Your task to perform on an android device: change text size in settings app Image 0: 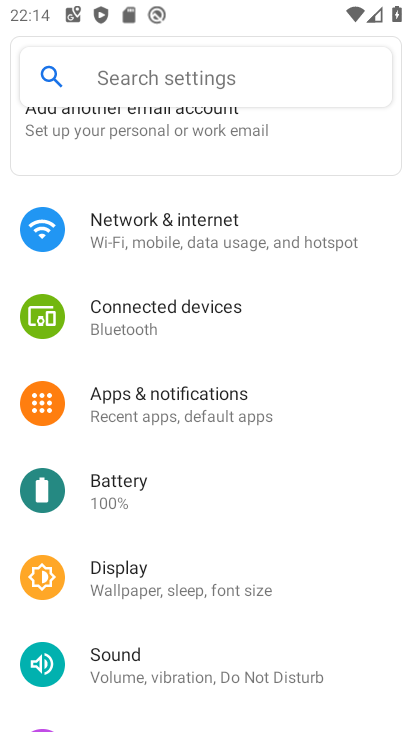
Step 0: press home button
Your task to perform on an android device: change text size in settings app Image 1: 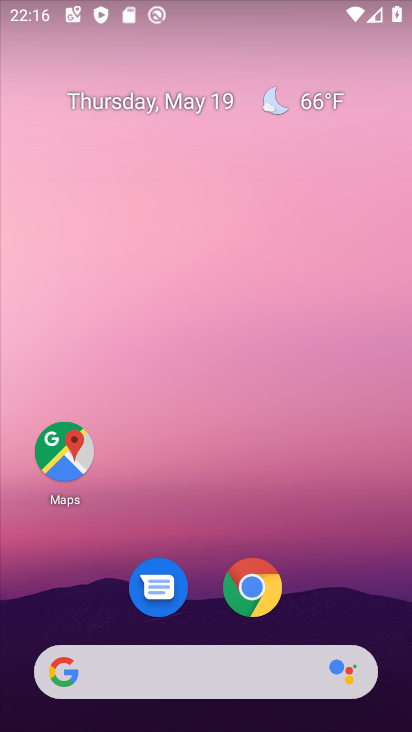
Step 1: drag from (230, 721) to (200, 275)
Your task to perform on an android device: change text size in settings app Image 2: 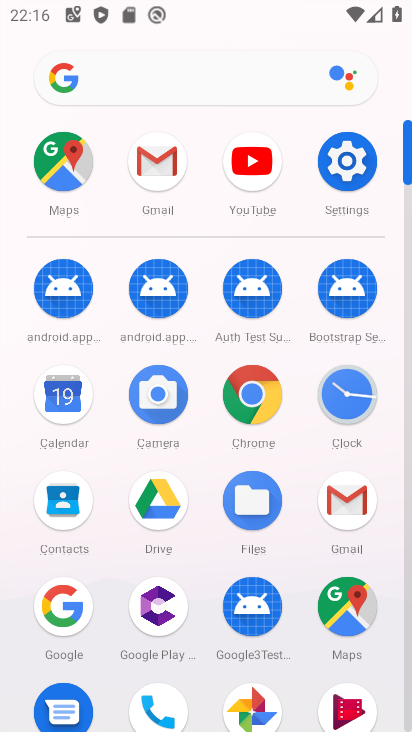
Step 2: click (331, 172)
Your task to perform on an android device: change text size in settings app Image 3: 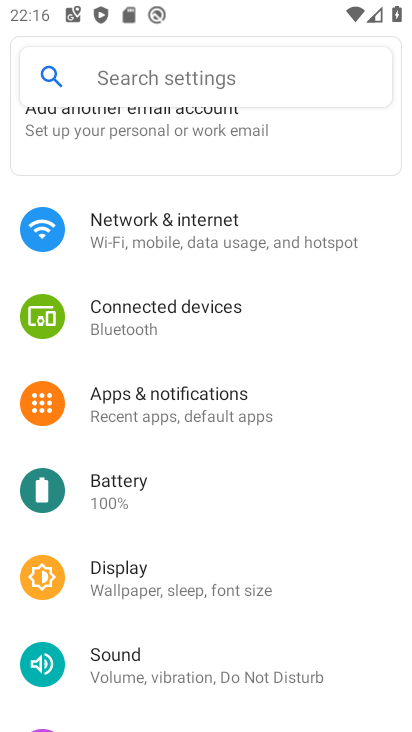
Step 3: click (107, 64)
Your task to perform on an android device: change text size in settings app Image 4: 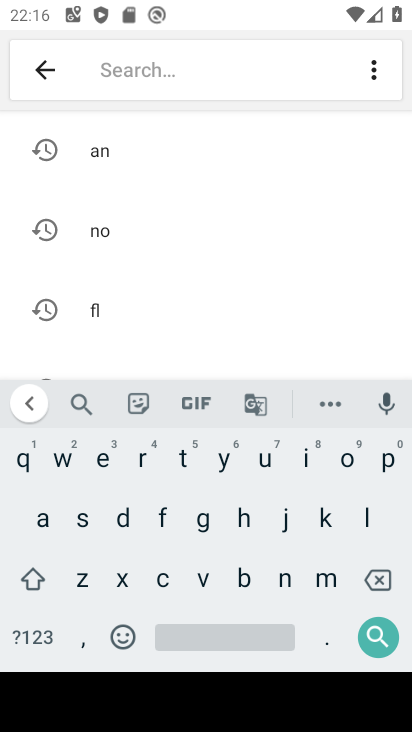
Step 4: click (77, 516)
Your task to perform on an android device: change text size in settings app Image 5: 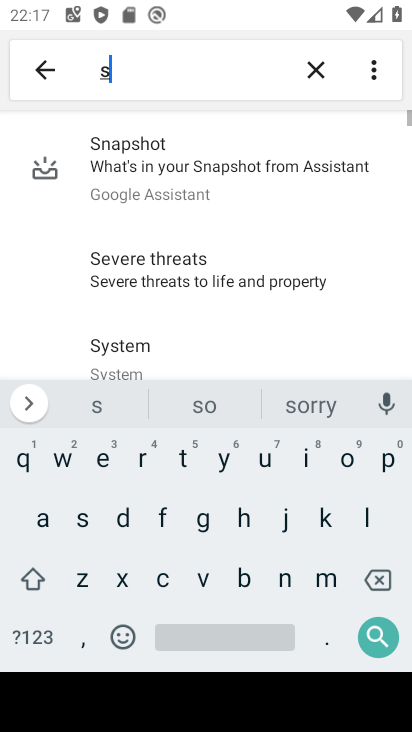
Step 5: click (297, 462)
Your task to perform on an android device: change text size in settings app Image 6: 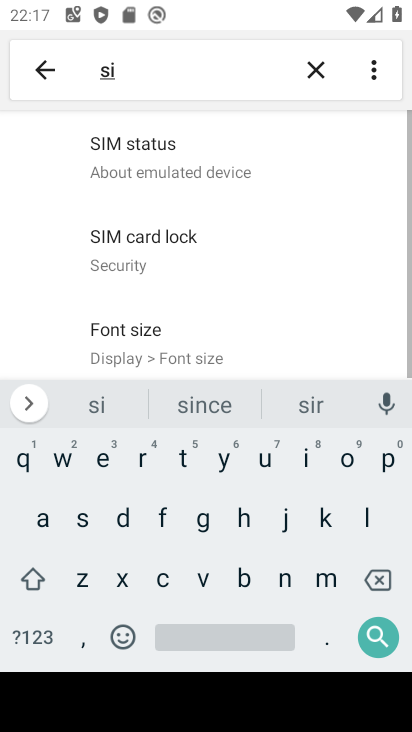
Step 6: click (78, 571)
Your task to perform on an android device: change text size in settings app Image 7: 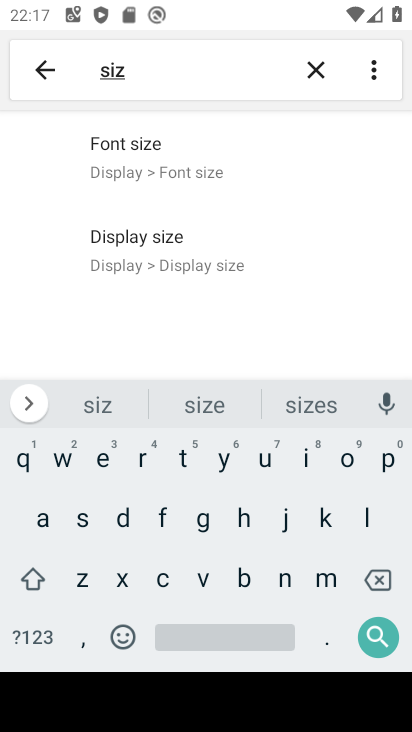
Step 7: click (187, 185)
Your task to perform on an android device: change text size in settings app Image 8: 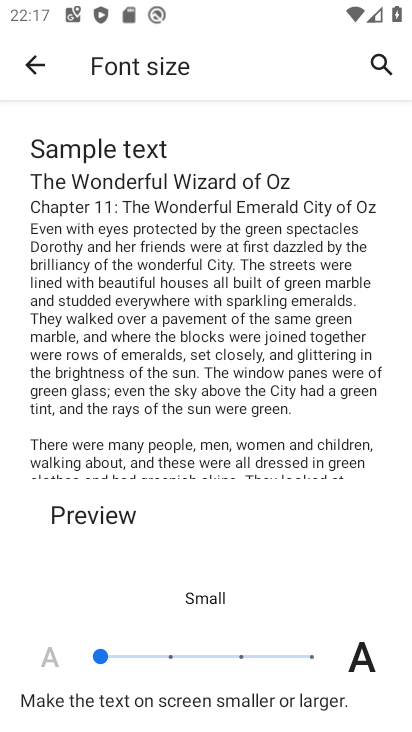
Step 8: click (166, 656)
Your task to perform on an android device: change text size in settings app Image 9: 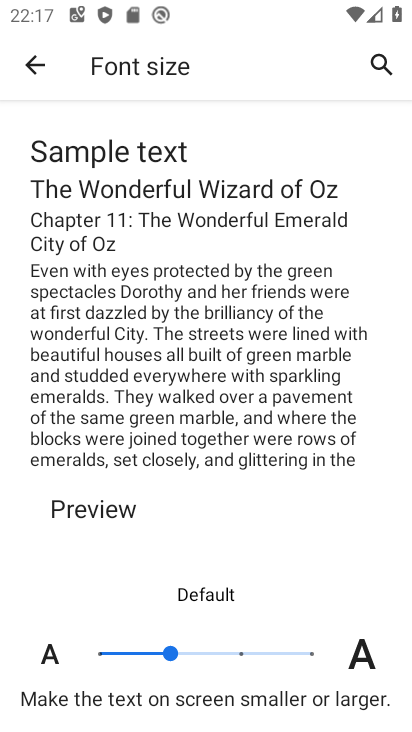
Step 9: task complete